Your task to perform on an android device: Open the web browser Image 0: 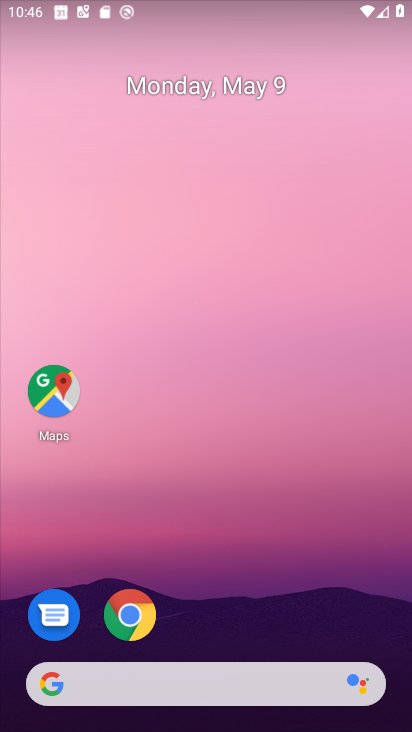
Step 0: drag from (308, 701) to (347, 227)
Your task to perform on an android device: Open the web browser Image 1: 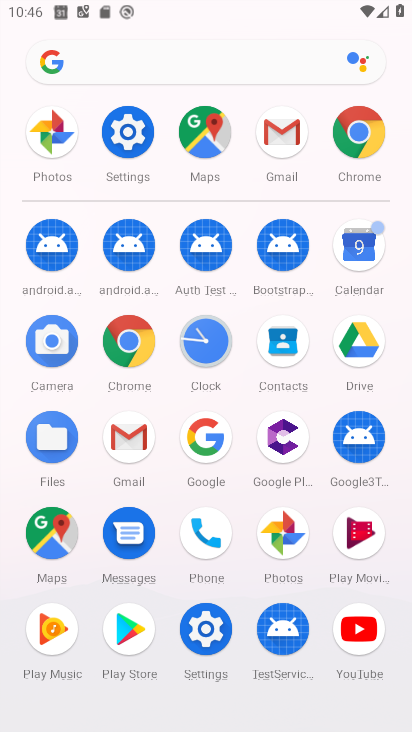
Step 1: click (134, 136)
Your task to perform on an android device: Open the web browser Image 2: 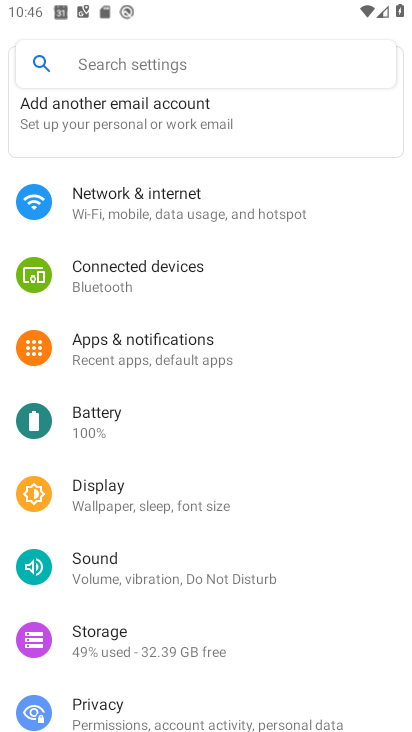
Step 2: press home button
Your task to perform on an android device: Open the web browser Image 3: 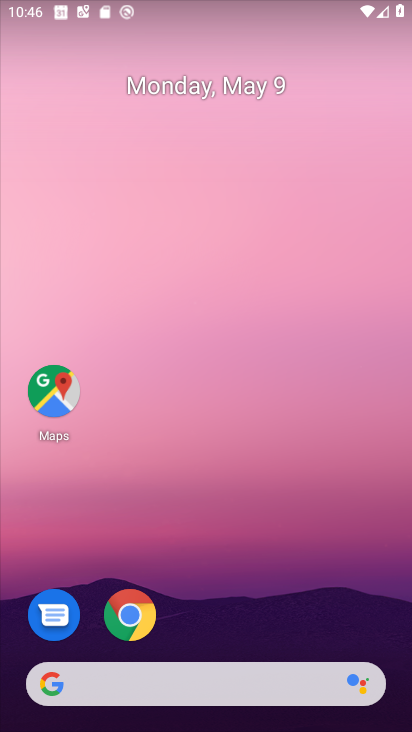
Step 3: drag from (291, 629) to (233, 176)
Your task to perform on an android device: Open the web browser Image 4: 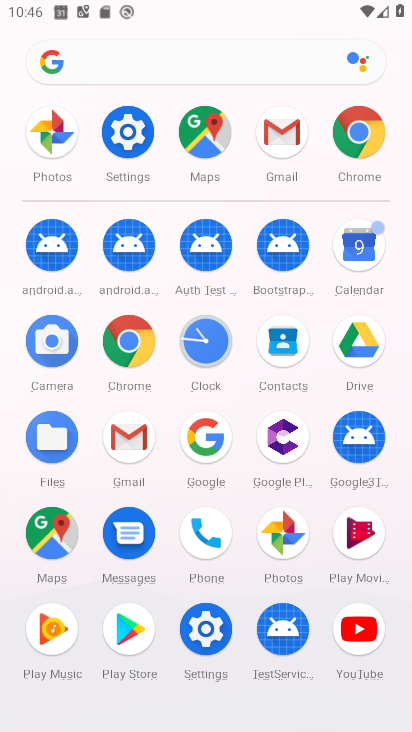
Step 4: click (349, 136)
Your task to perform on an android device: Open the web browser Image 5: 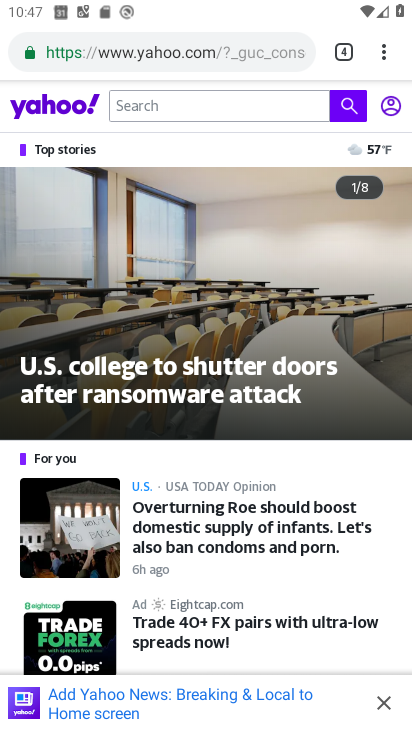
Step 5: click (211, 64)
Your task to perform on an android device: Open the web browser Image 6: 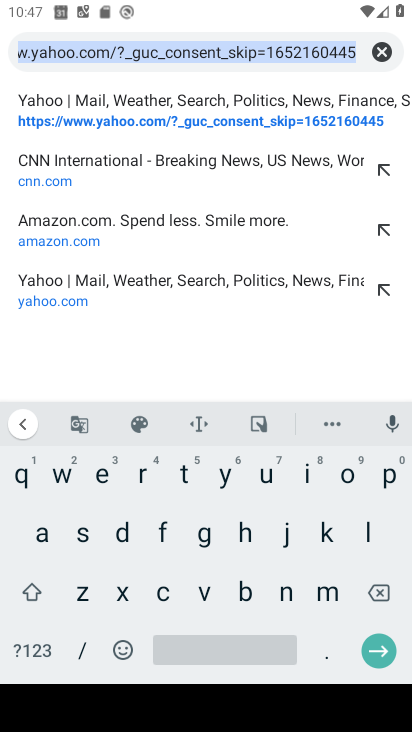
Step 6: click (382, 49)
Your task to perform on an android device: Open the web browser Image 7: 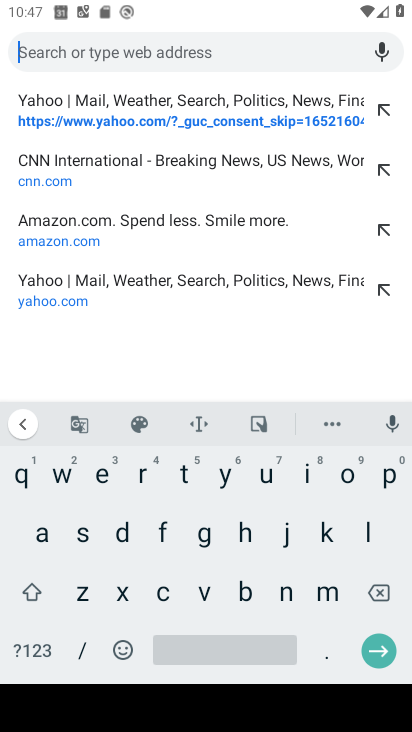
Step 7: task complete